Your task to perform on an android device: change the clock display to digital Image 0: 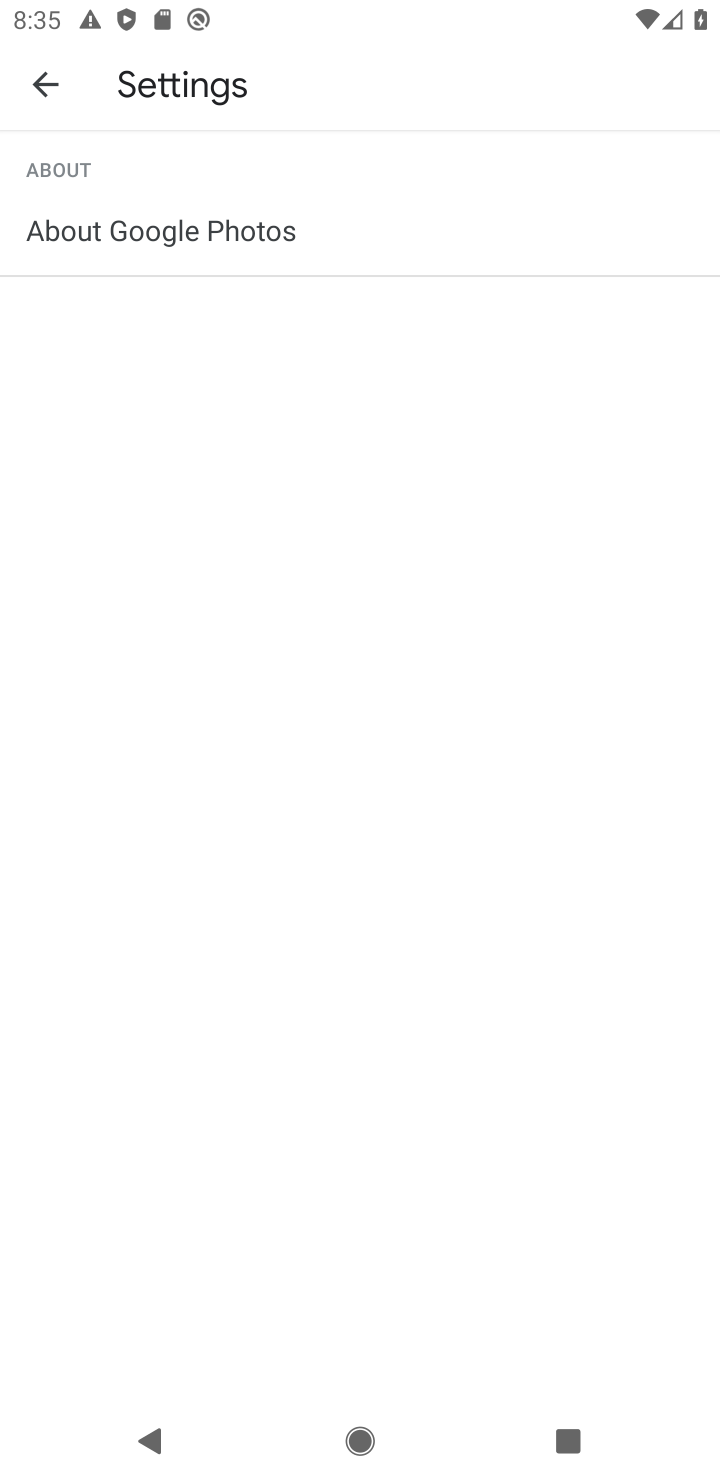
Step 0: press home button
Your task to perform on an android device: change the clock display to digital Image 1: 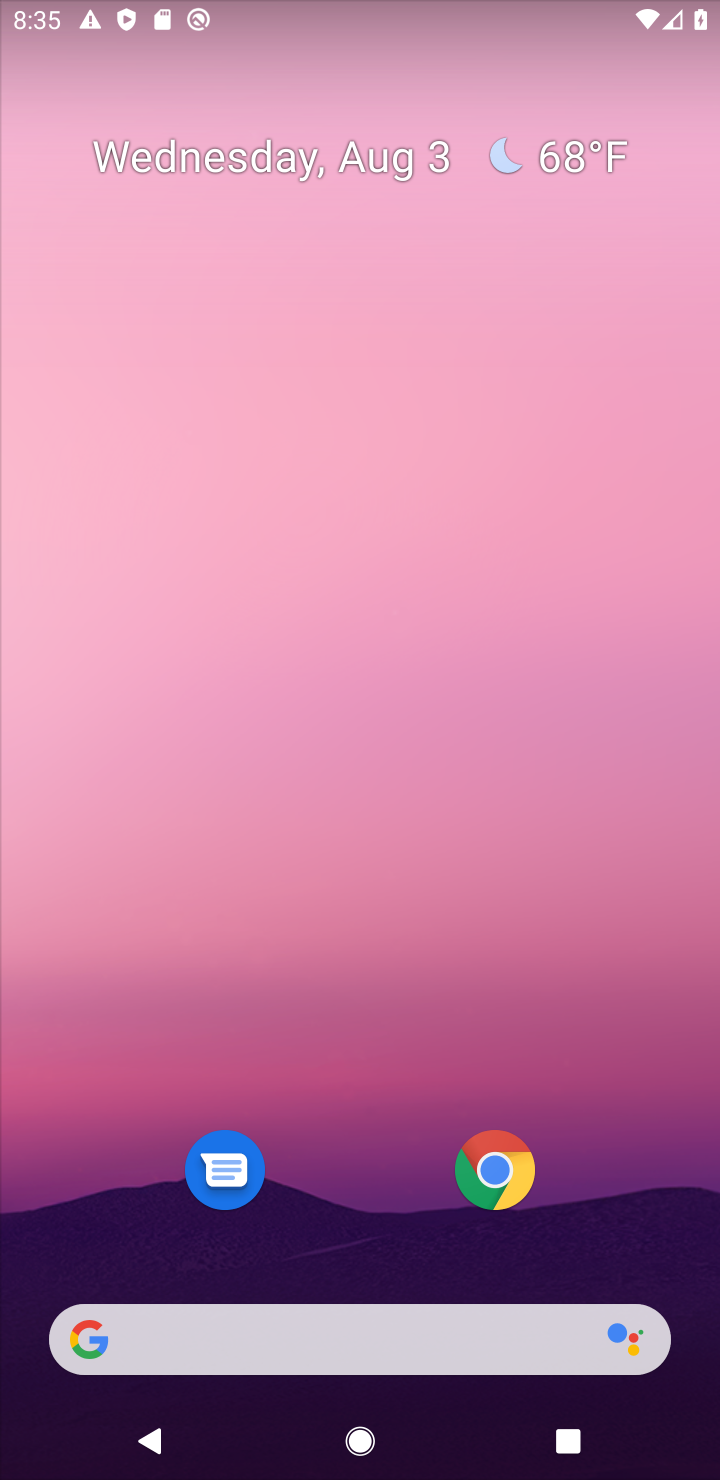
Step 1: drag from (661, 1222) to (590, 106)
Your task to perform on an android device: change the clock display to digital Image 2: 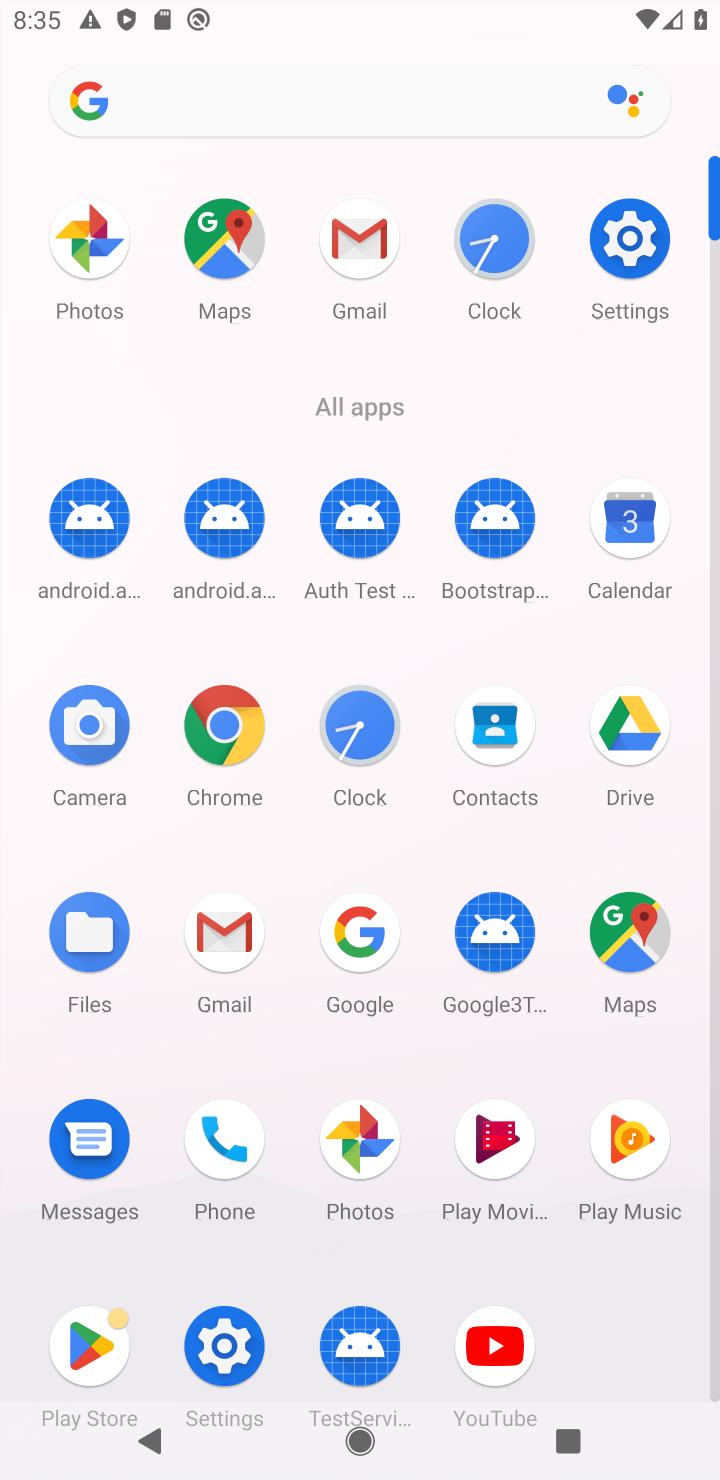
Step 2: click (359, 726)
Your task to perform on an android device: change the clock display to digital Image 3: 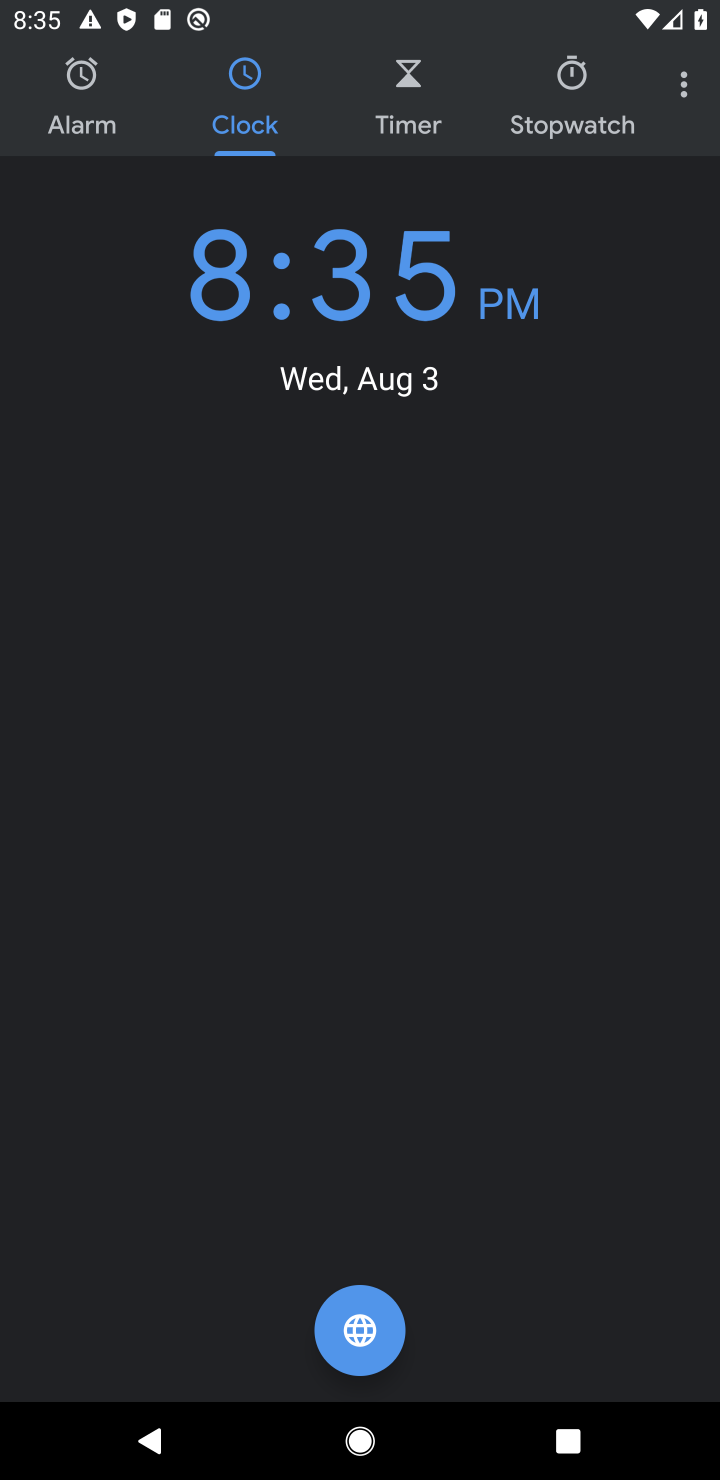
Step 3: click (686, 100)
Your task to perform on an android device: change the clock display to digital Image 4: 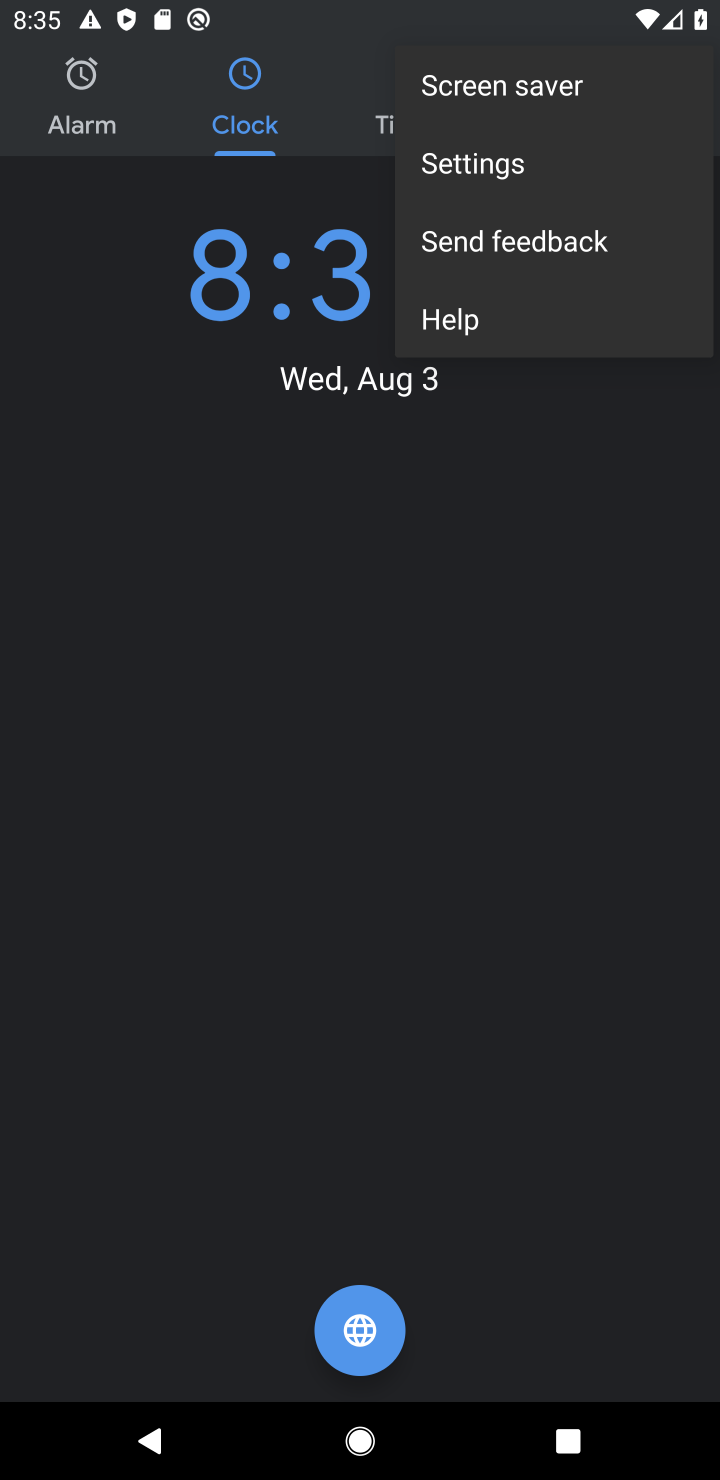
Step 4: click (476, 164)
Your task to perform on an android device: change the clock display to digital Image 5: 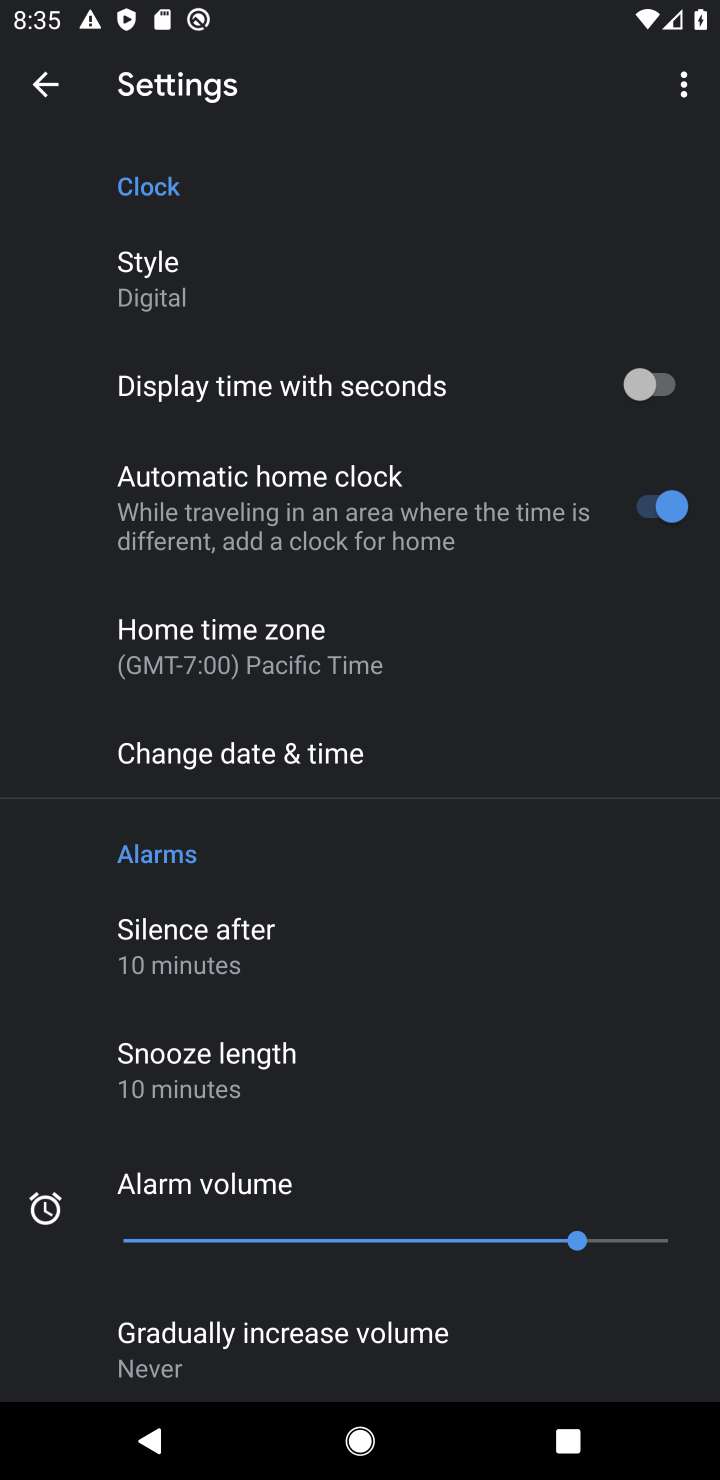
Step 5: task complete